Your task to perform on an android device: Open wifi settings Image 0: 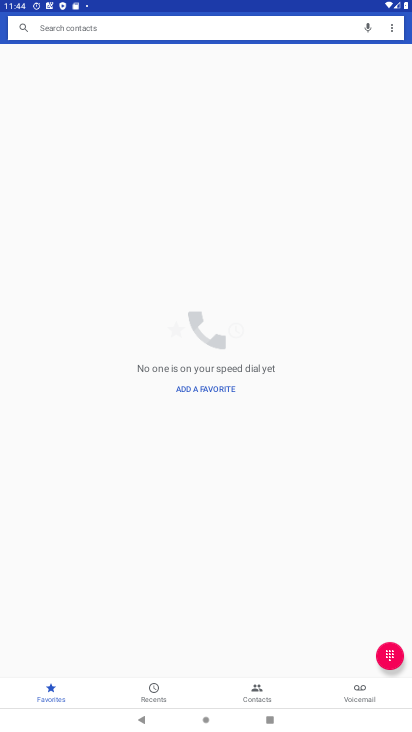
Step 0: press back button
Your task to perform on an android device: Open wifi settings Image 1: 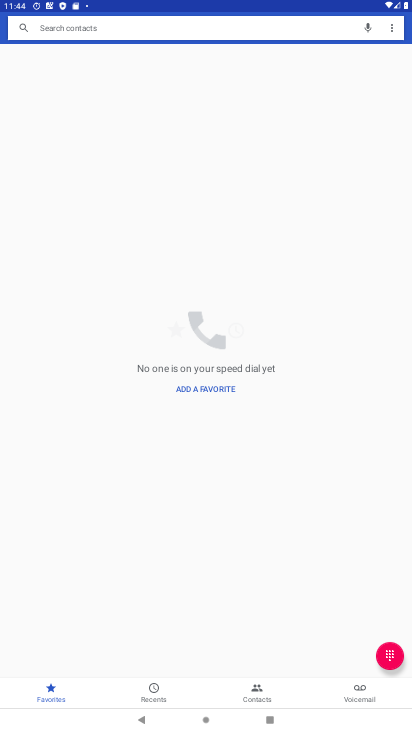
Step 1: press back button
Your task to perform on an android device: Open wifi settings Image 2: 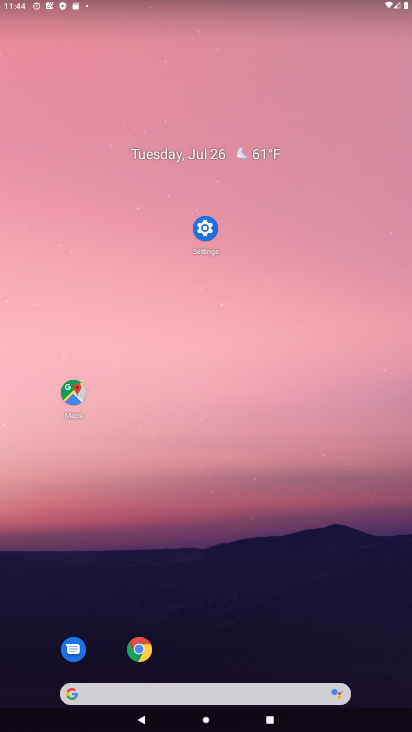
Step 2: drag from (280, 455) to (292, 229)
Your task to perform on an android device: Open wifi settings Image 3: 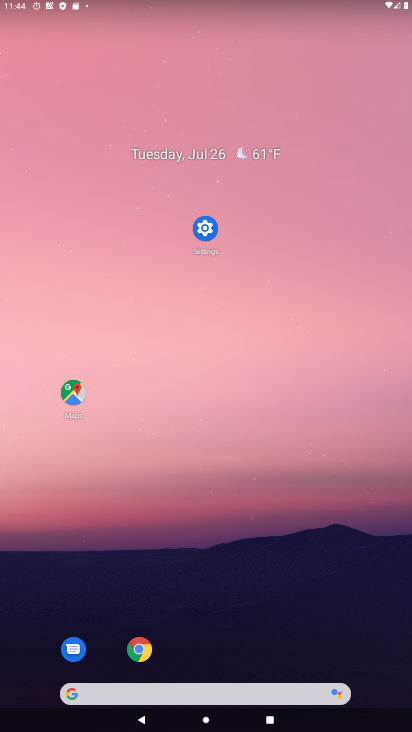
Step 3: drag from (198, 518) to (126, 145)
Your task to perform on an android device: Open wifi settings Image 4: 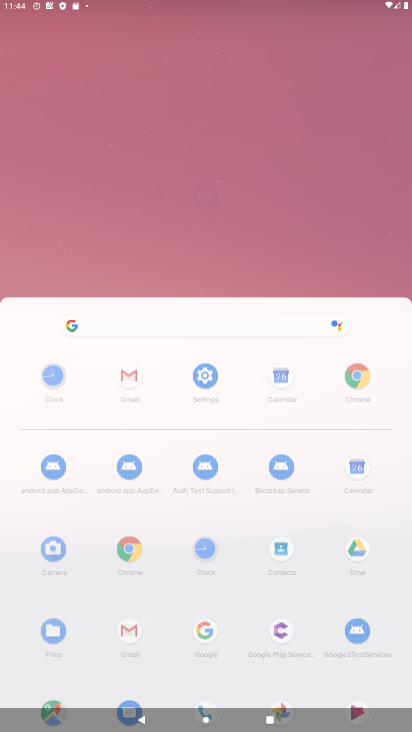
Step 4: drag from (365, 682) to (360, 253)
Your task to perform on an android device: Open wifi settings Image 5: 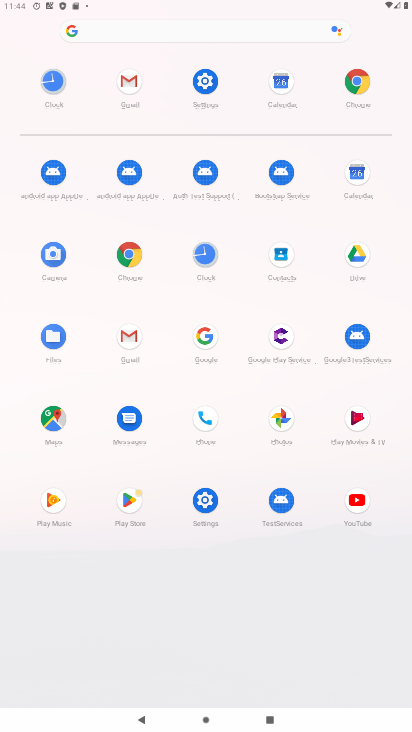
Step 5: click (188, 85)
Your task to perform on an android device: Open wifi settings Image 6: 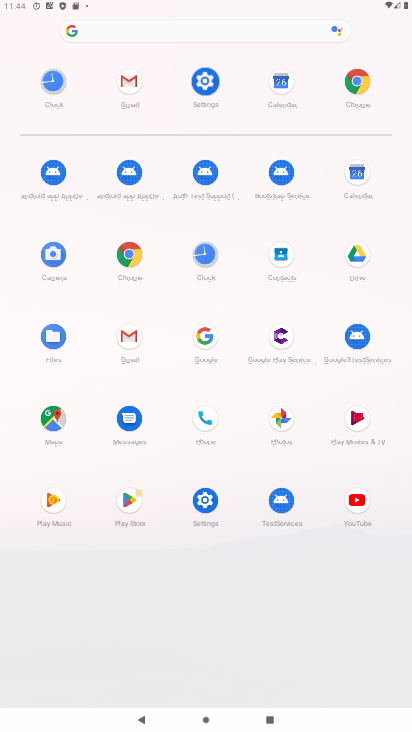
Step 6: click (186, 86)
Your task to perform on an android device: Open wifi settings Image 7: 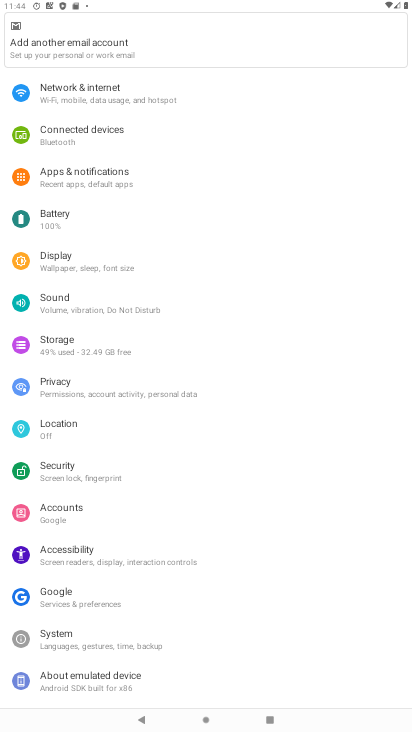
Step 7: click (78, 83)
Your task to perform on an android device: Open wifi settings Image 8: 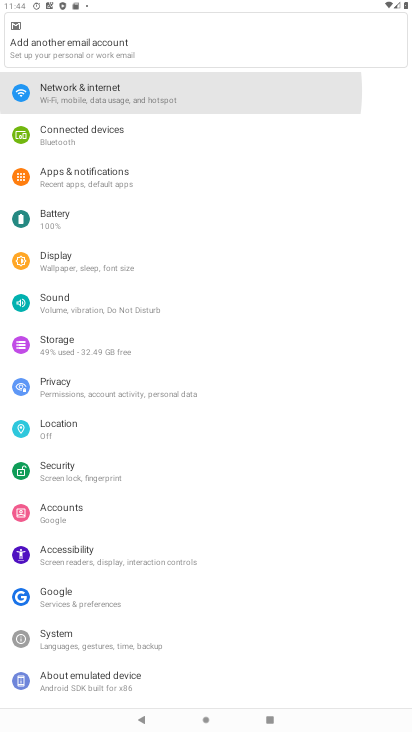
Step 8: click (84, 86)
Your task to perform on an android device: Open wifi settings Image 9: 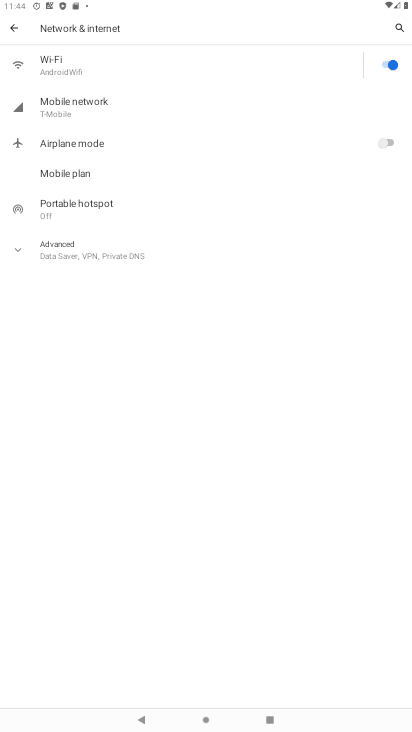
Step 9: task complete